Your task to perform on an android device: delete a single message in the gmail app Image 0: 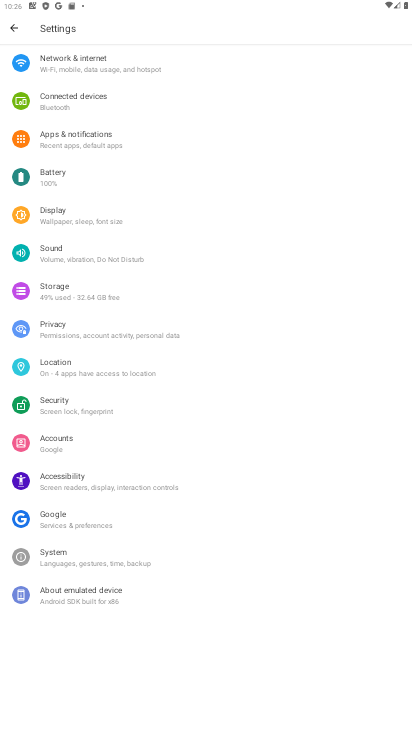
Step 0: press home button
Your task to perform on an android device: delete a single message in the gmail app Image 1: 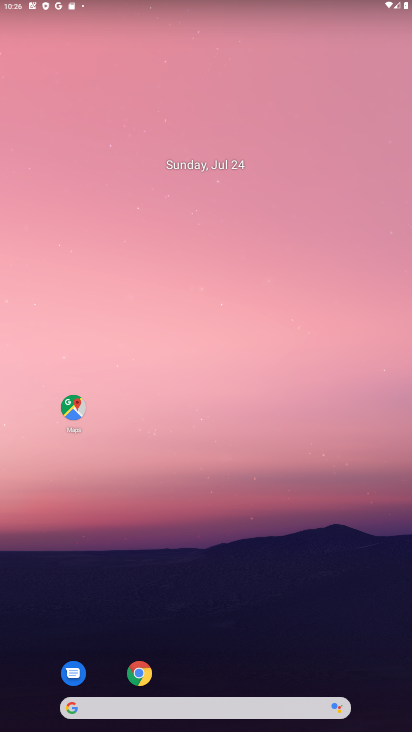
Step 1: drag from (44, 681) to (228, 224)
Your task to perform on an android device: delete a single message in the gmail app Image 2: 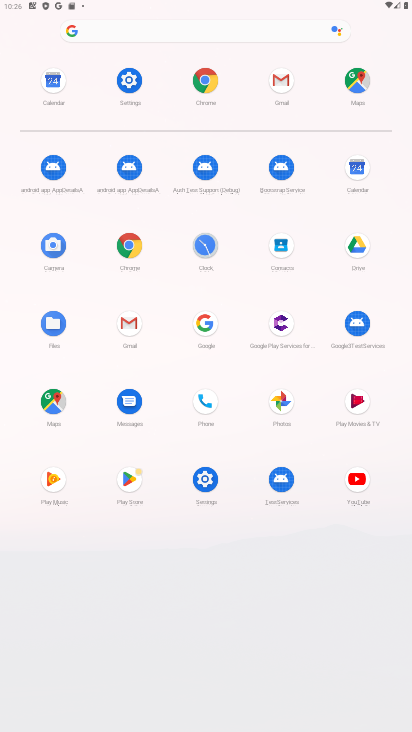
Step 2: click (125, 341)
Your task to perform on an android device: delete a single message in the gmail app Image 3: 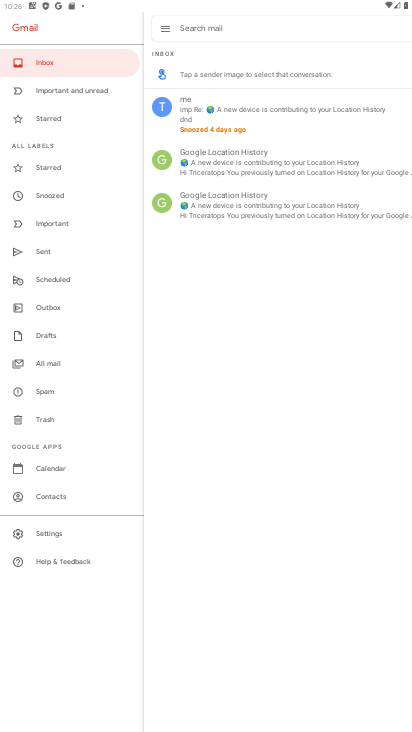
Step 3: click (264, 120)
Your task to perform on an android device: delete a single message in the gmail app Image 4: 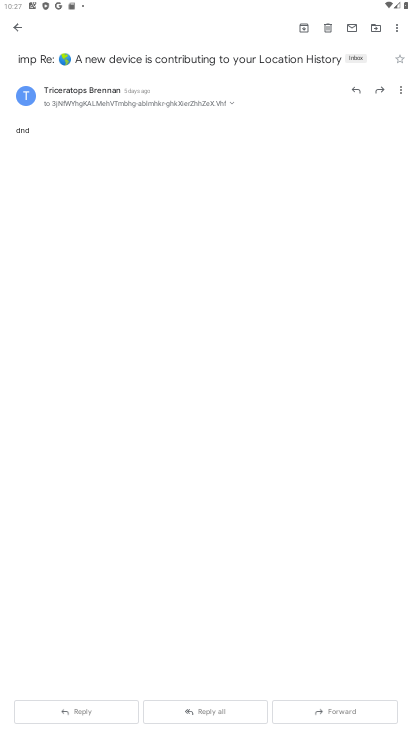
Step 4: click (328, 24)
Your task to perform on an android device: delete a single message in the gmail app Image 5: 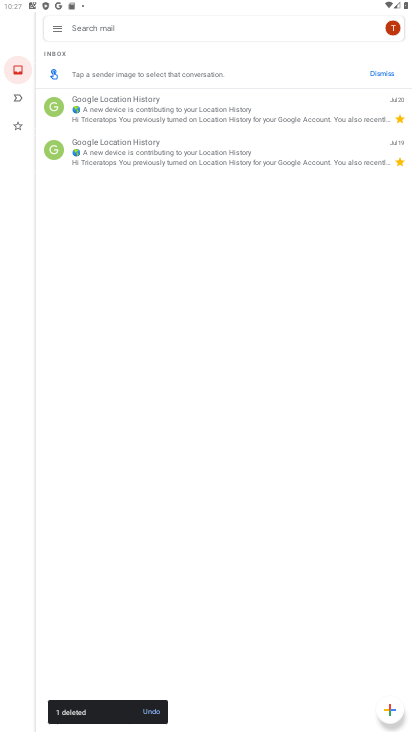
Step 5: task complete